Your task to perform on an android device: turn on wifi Image 0: 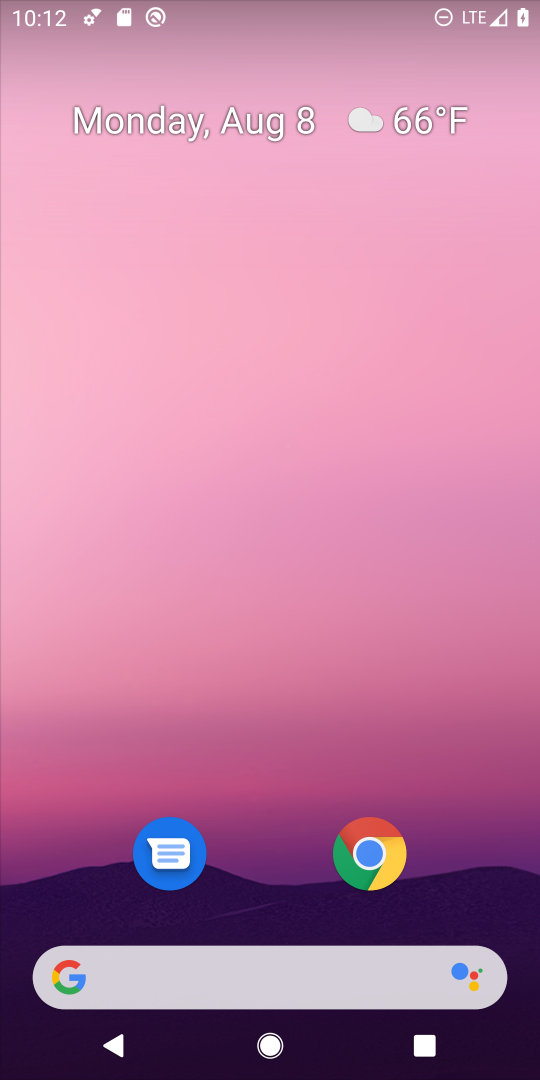
Step 0: drag from (202, 10) to (226, 249)
Your task to perform on an android device: turn on wifi Image 1: 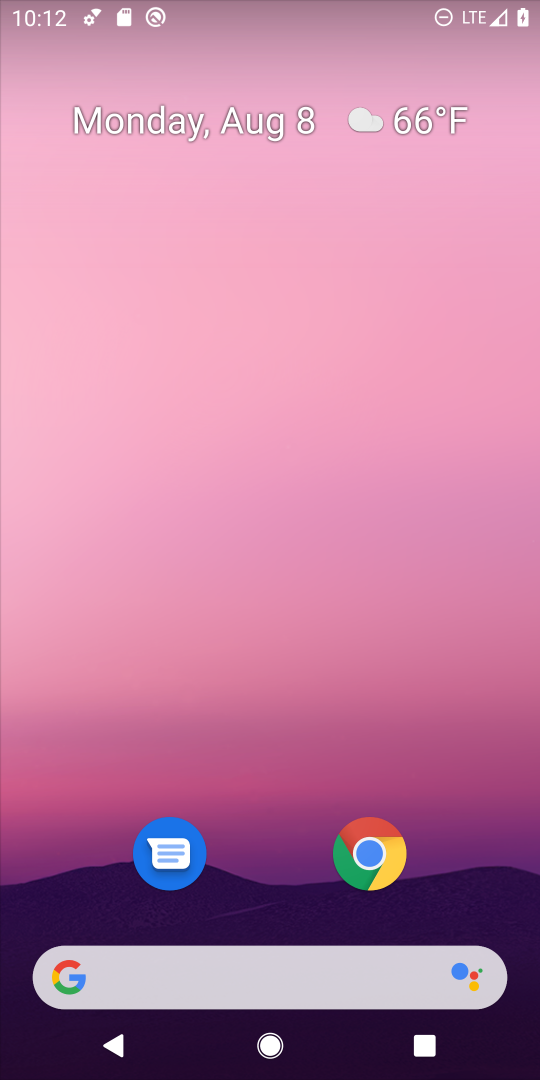
Step 1: drag from (241, 10) to (136, 874)
Your task to perform on an android device: turn on wifi Image 2: 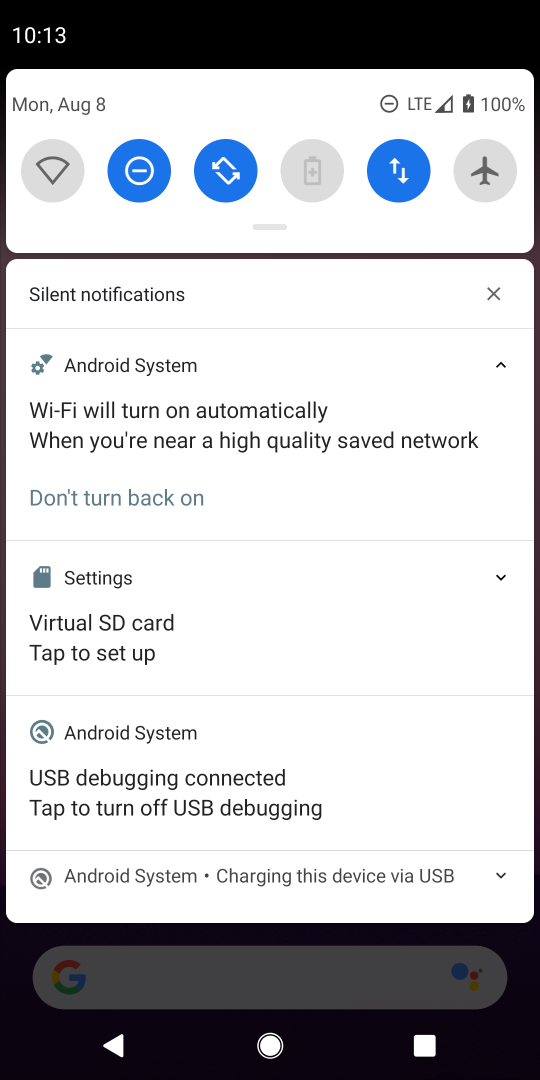
Step 2: click (67, 181)
Your task to perform on an android device: turn on wifi Image 3: 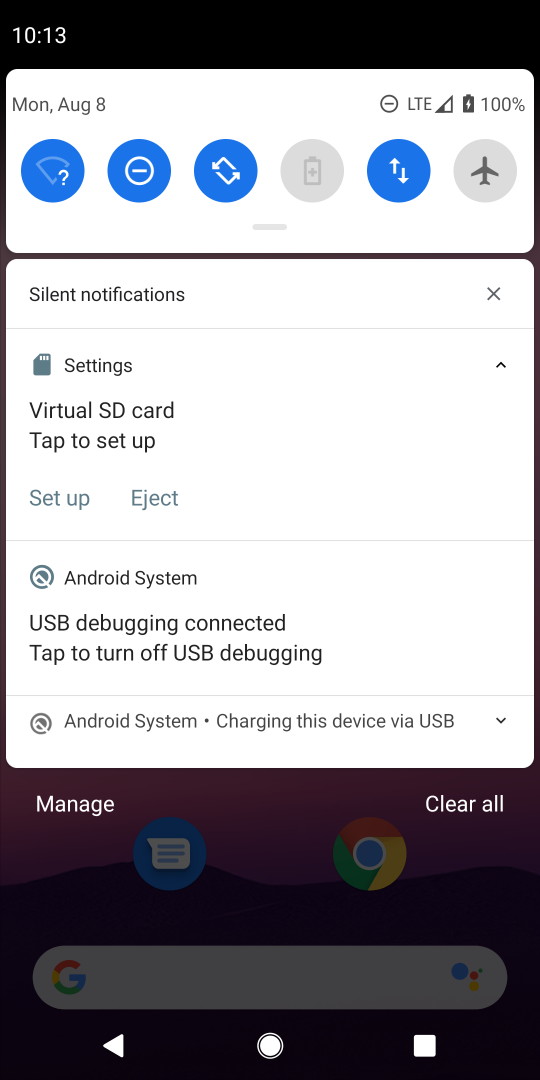
Step 3: click (67, 181)
Your task to perform on an android device: turn on wifi Image 4: 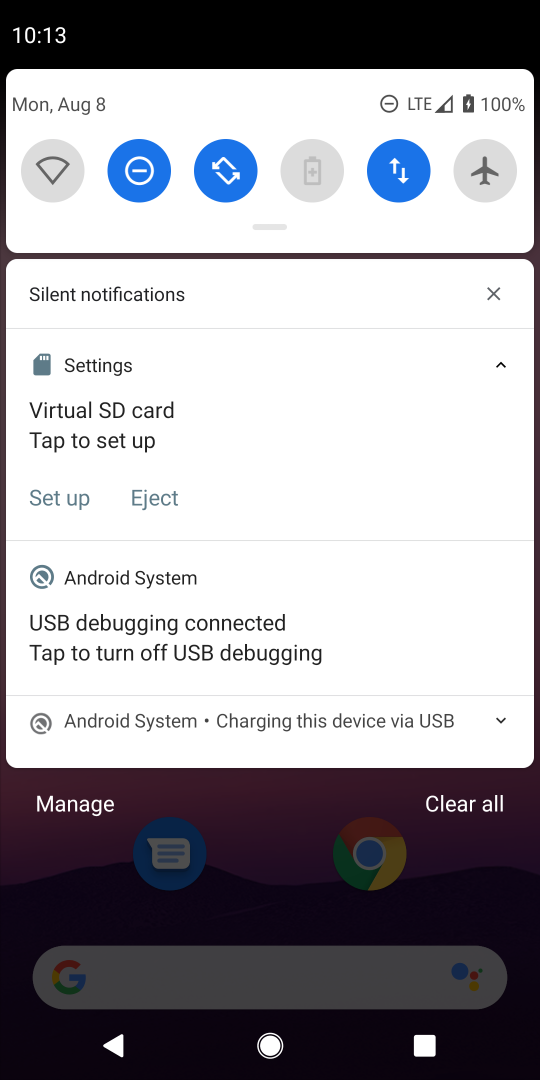
Step 4: click (67, 181)
Your task to perform on an android device: turn on wifi Image 5: 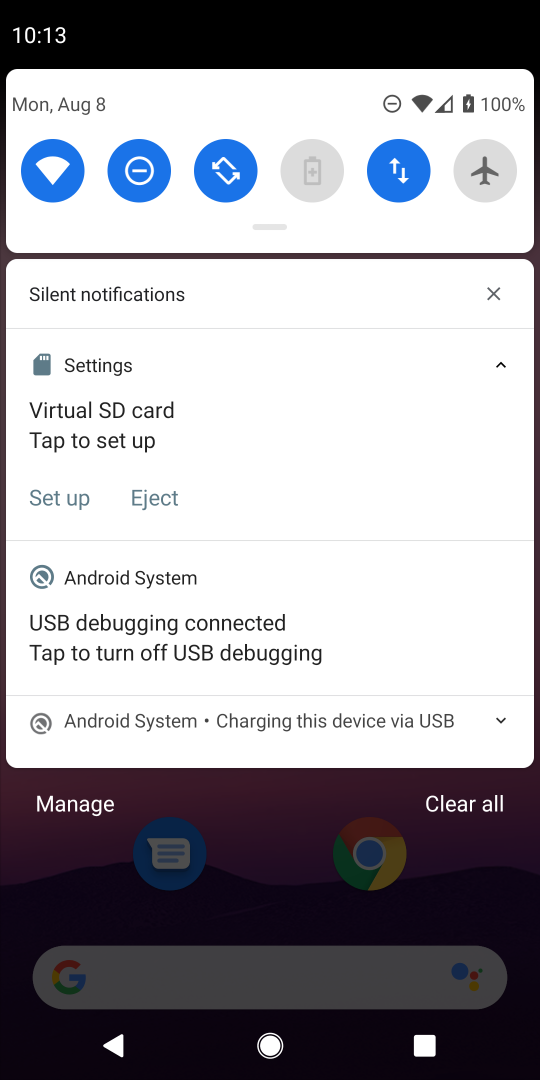
Step 5: task complete